Your task to perform on an android device: add a contact in the contacts app Image 0: 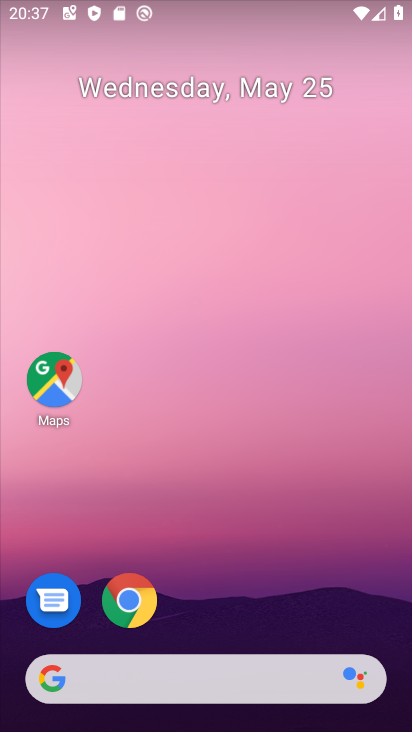
Step 0: drag from (294, 587) to (217, 172)
Your task to perform on an android device: add a contact in the contacts app Image 1: 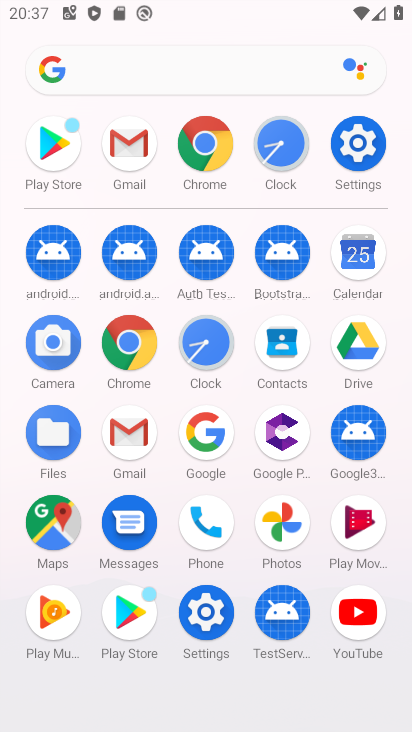
Step 1: click (295, 357)
Your task to perform on an android device: add a contact in the contacts app Image 2: 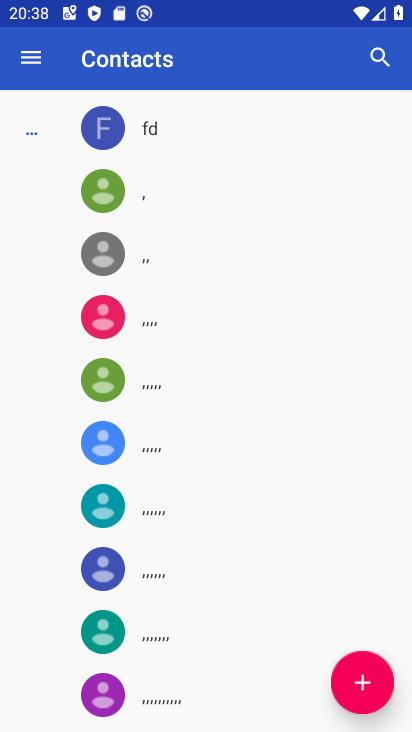
Step 2: click (370, 686)
Your task to perform on an android device: add a contact in the contacts app Image 3: 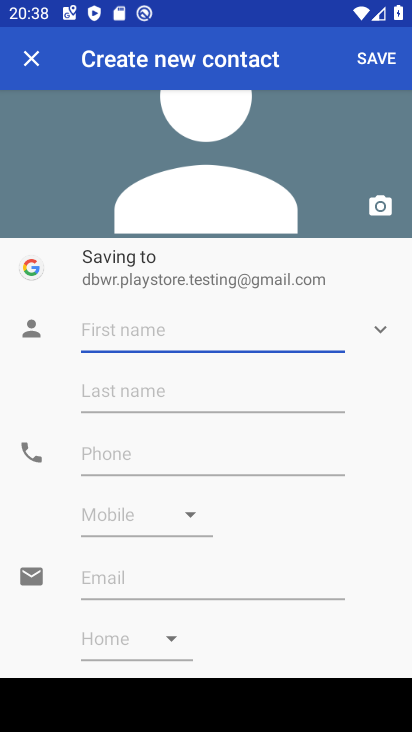
Step 3: type "osdmccm"
Your task to perform on an android device: add a contact in the contacts app Image 4: 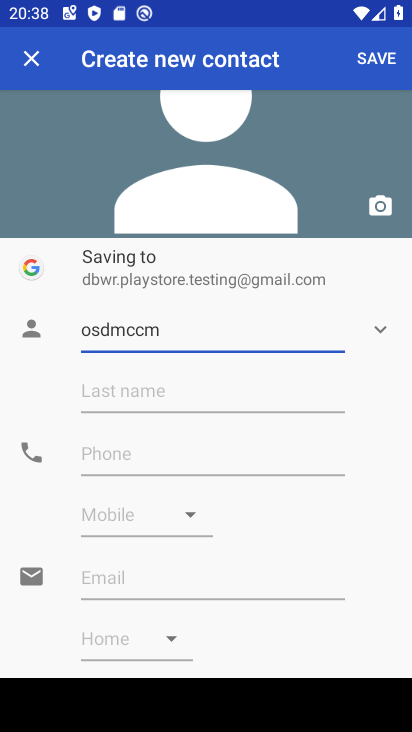
Step 4: click (196, 460)
Your task to perform on an android device: add a contact in the contacts app Image 5: 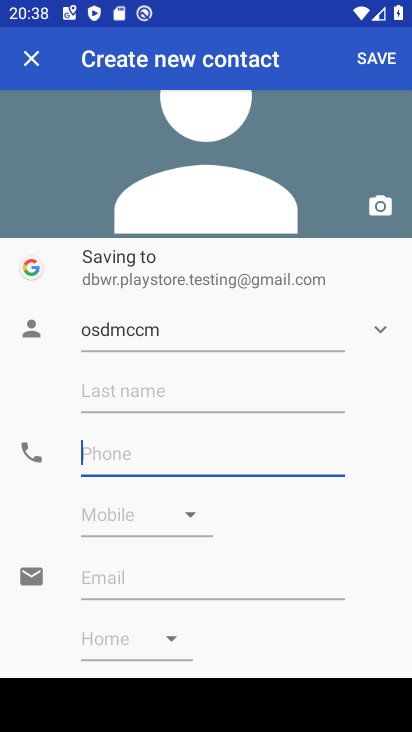
Step 5: type "293847402"
Your task to perform on an android device: add a contact in the contacts app Image 6: 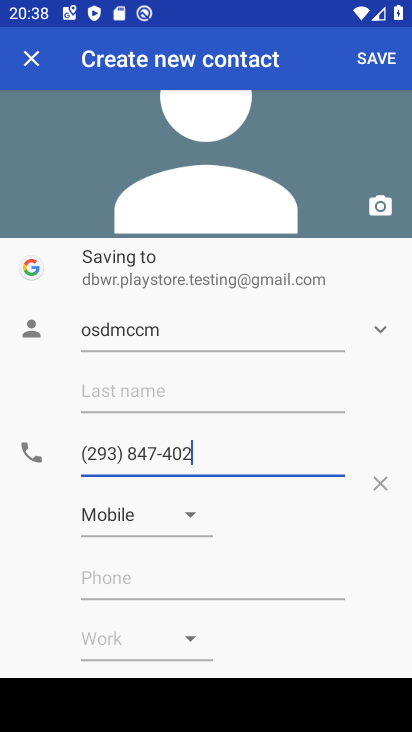
Step 6: click (375, 59)
Your task to perform on an android device: add a contact in the contacts app Image 7: 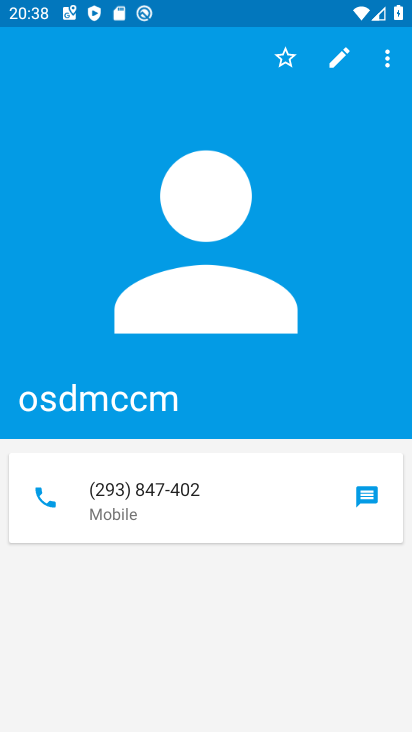
Step 7: task complete